Your task to perform on an android device: see tabs open on other devices in the chrome app Image 0: 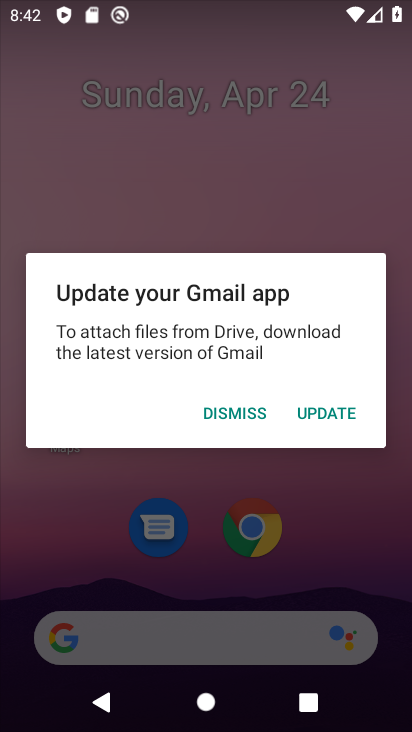
Step 0: press home button
Your task to perform on an android device: see tabs open on other devices in the chrome app Image 1: 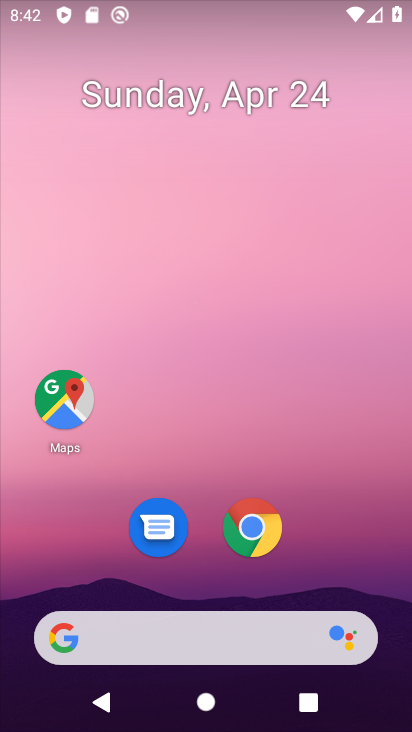
Step 1: drag from (386, 599) to (230, 90)
Your task to perform on an android device: see tabs open on other devices in the chrome app Image 2: 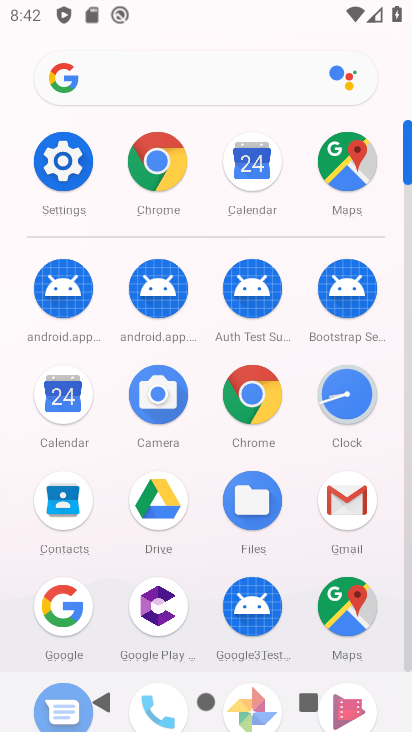
Step 2: click (159, 145)
Your task to perform on an android device: see tabs open on other devices in the chrome app Image 3: 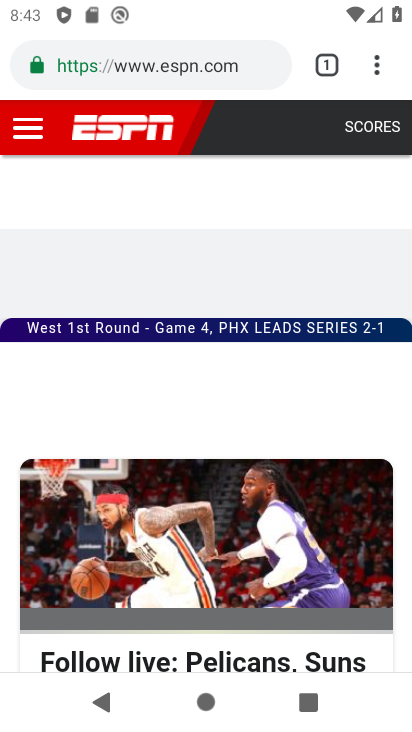
Step 3: task complete